Your task to perform on an android device: toggle notification dots Image 0: 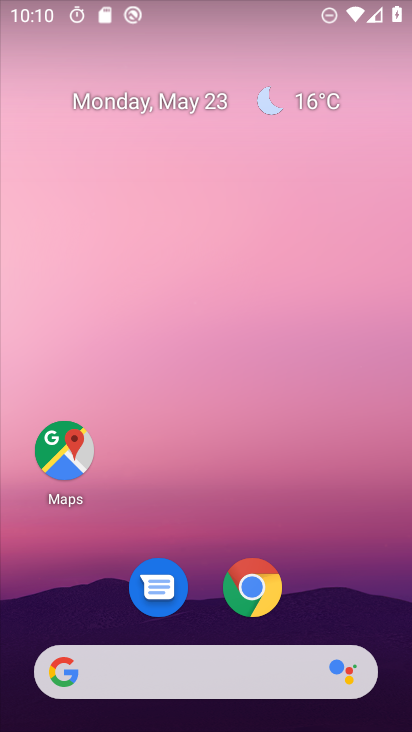
Step 0: drag from (203, 545) to (272, 53)
Your task to perform on an android device: toggle notification dots Image 1: 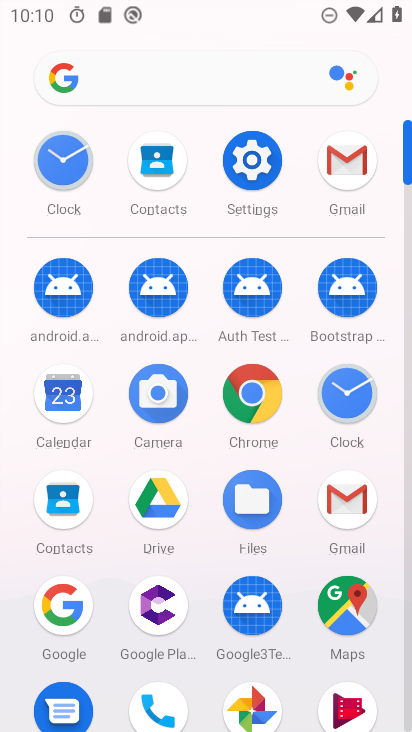
Step 1: click (259, 162)
Your task to perform on an android device: toggle notification dots Image 2: 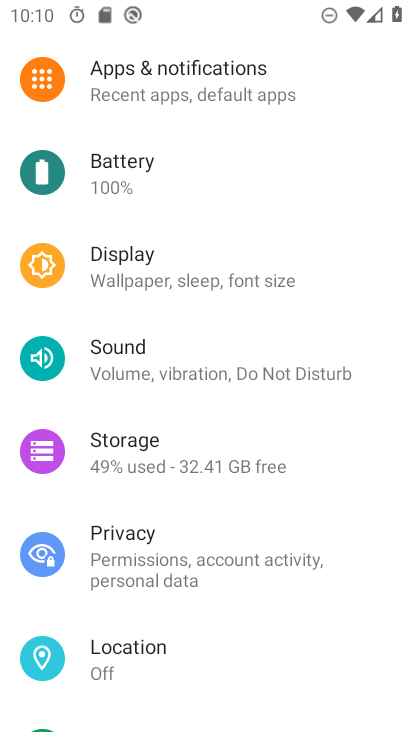
Step 2: click (157, 73)
Your task to perform on an android device: toggle notification dots Image 3: 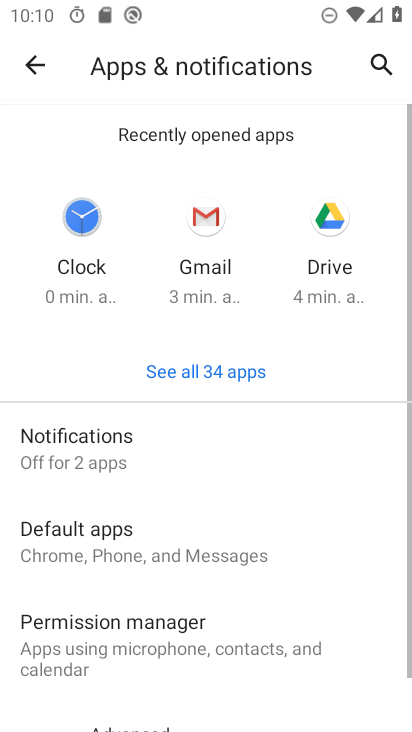
Step 3: click (120, 448)
Your task to perform on an android device: toggle notification dots Image 4: 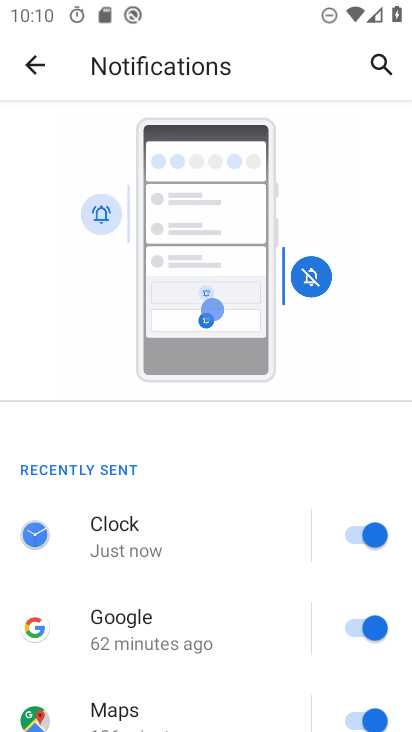
Step 4: drag from (128, 641) to (171, 166)
Your task to perform on an android device: toggle notification dots Image 5: 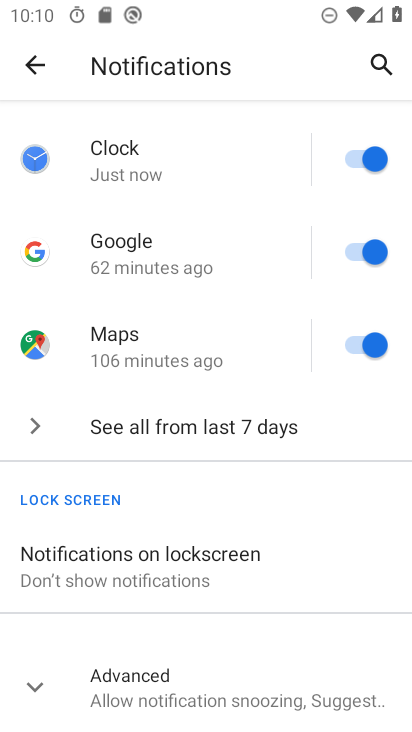
Step 5: click (217, 679)
Your task to perform on an android device: toggle notification dots Image 6: 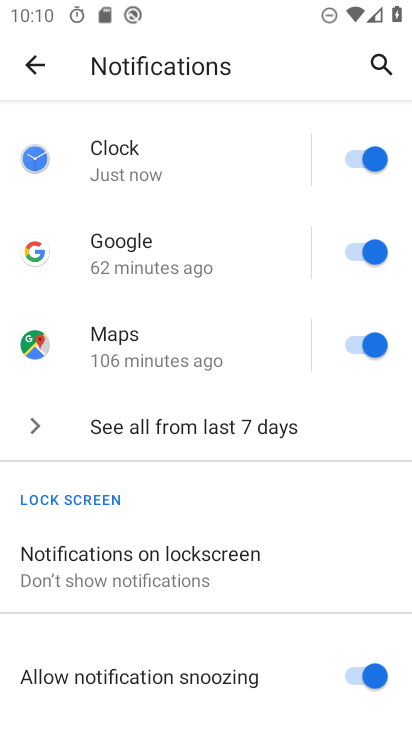
Step 6: drag from (232, 676) to (262, 213)
Your task to perform on an android device: toggle notification dots Image 7: 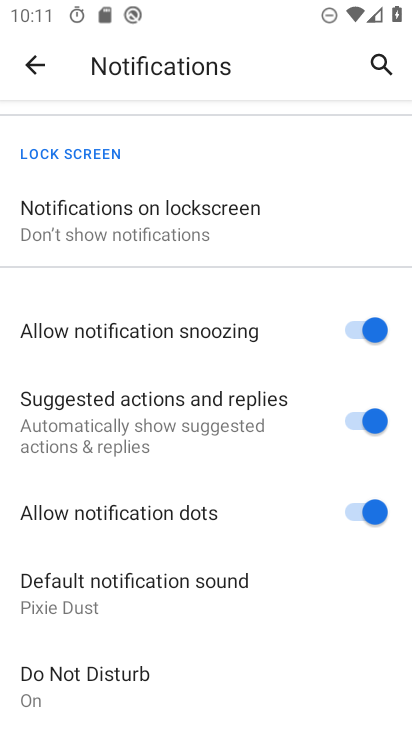
Step 7: click (363, 507)
Your task to perform on an android device: toggle notification dots Image 8: 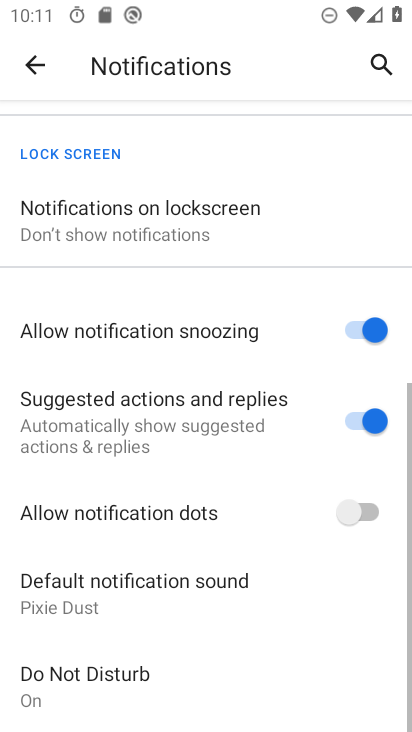
Step 8: task complete